Your task to perform on an android device: delete a single message in the gmail app Image 0: 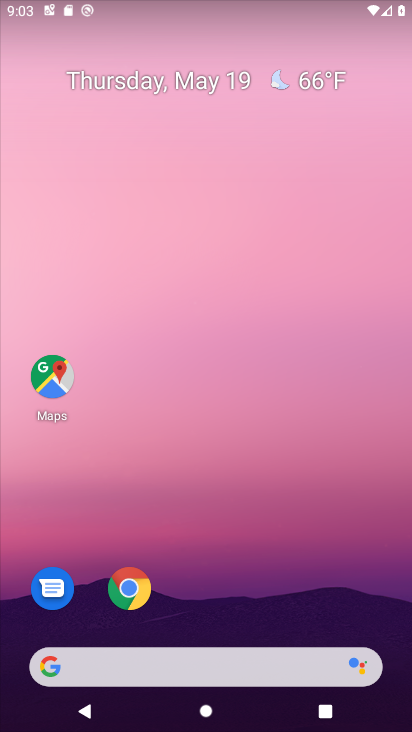
Step 0: drag from (343, 583) to (328, 250)
Your task to perform on an android device: delete a single message in the gmail app Image 1: 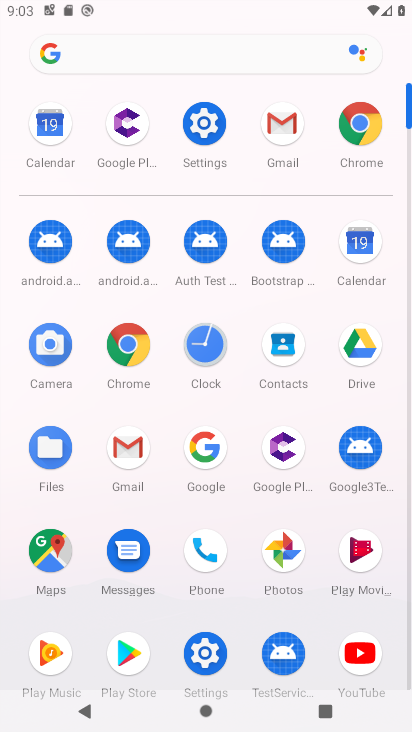
Step 1: drag from (307, 621) to (307, 414)
Your task to perform on an android device: delete a single message in the gmail app Image 2: 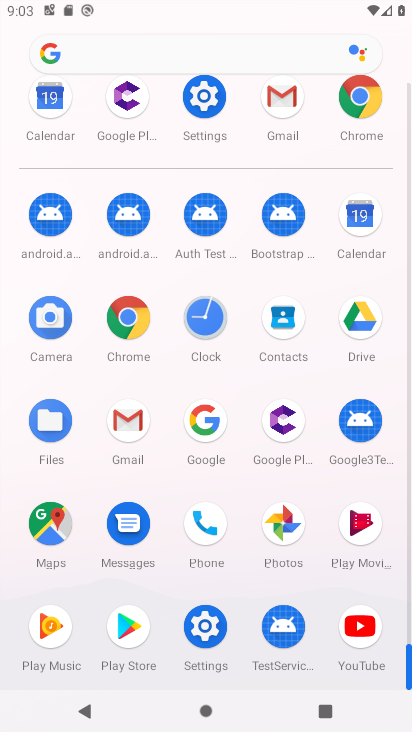
Step 2: click (126, 425)
Your task to perform on an android device: delete a single message in the gmail app Image 3: 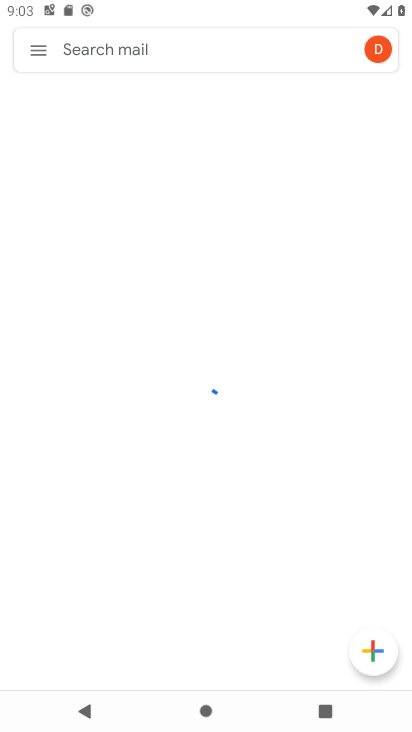
Step 3: click (39, 50)
Your task to perform on an android device: delete a single message in the gmail app Image 4: 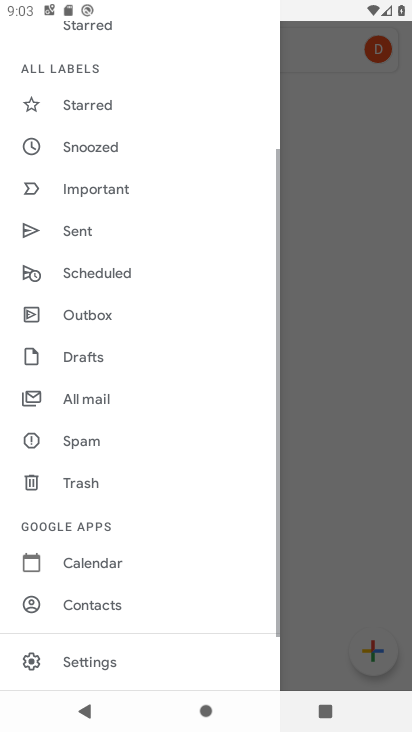
Step 4: drag from (195, 556) to (200, 360)
Your task to perform on an android device: delete a single message in the gmail app Image 5: 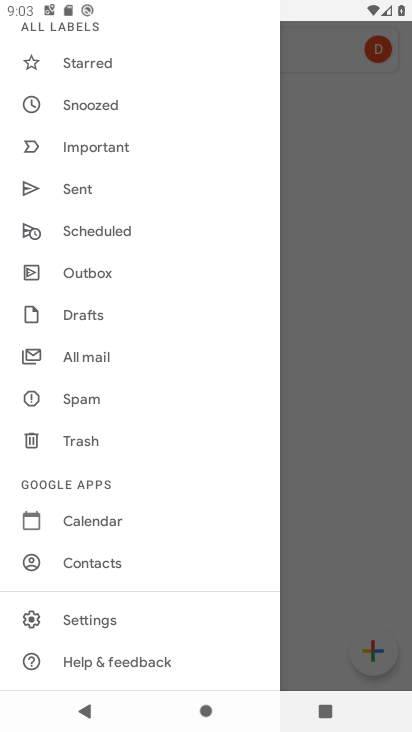
Step 5: drag from (213, 193) to (215, 359)
Your task to perform on an android device: delete a single message in the gmail app Image 6: 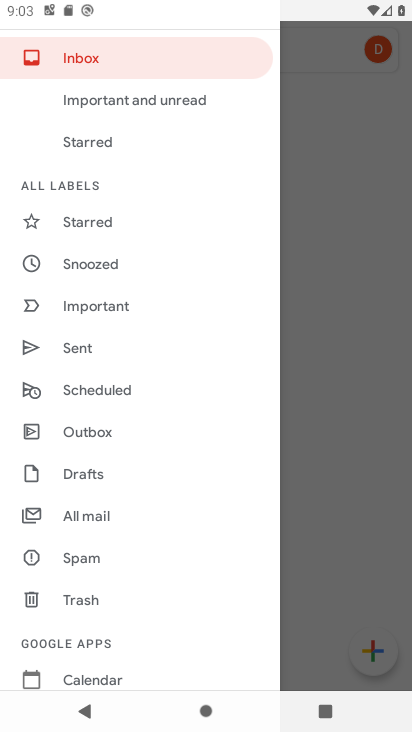
Step 6: drag from (220, 191) to (211, 407)
Your task to perform on an android device: delete a single message in the gmail app Image 7: 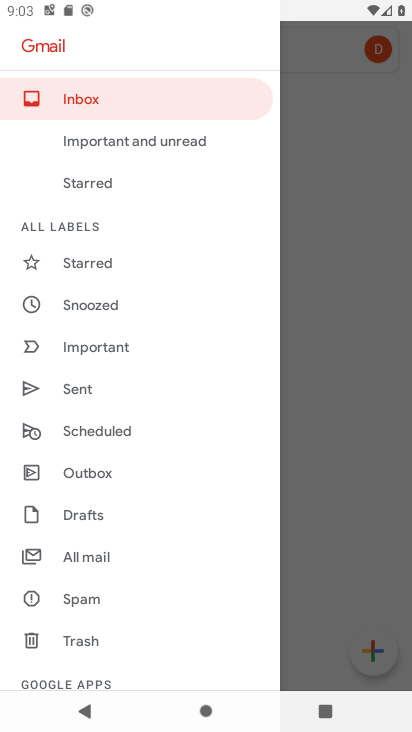
Step 7: click (132, 92)
Your task to perform on an android device: delete a single message in the gmail app Image 8: 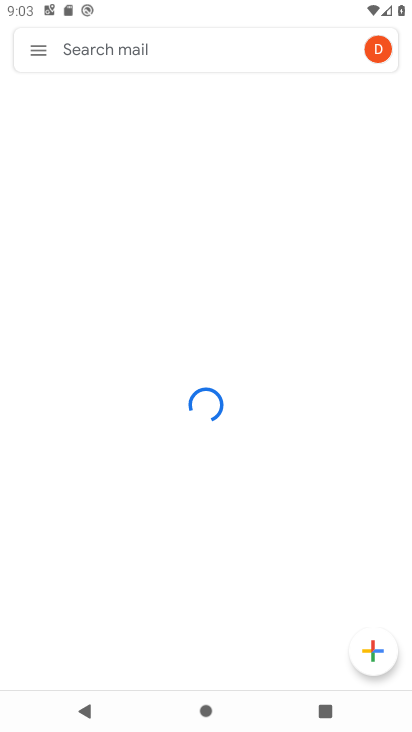
Step 8: task complete